Your task to perform on an android device: Open Maps and search for coffee Image 0: 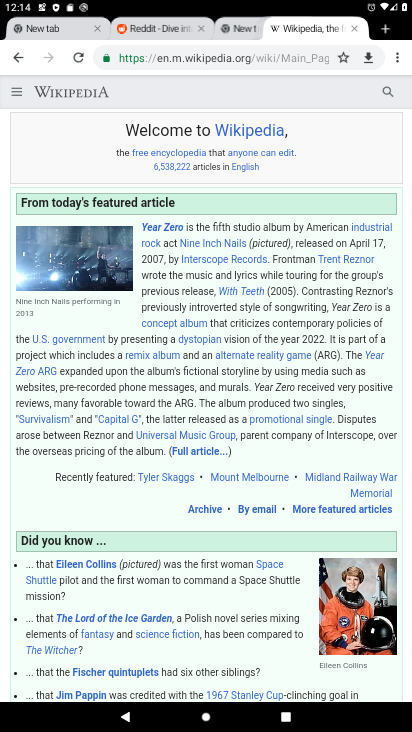
Step 0: press home button
Your task to perform on an android device: Open Maps and search for coffee Image 1: 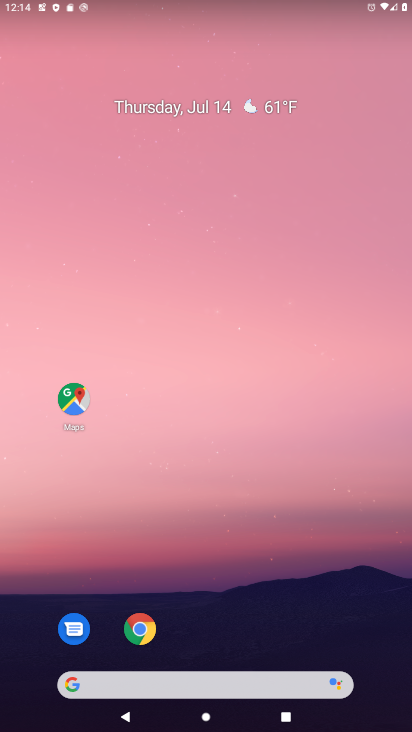
Step 1: click (71, 402)
Your task to perform on an android device: Open Maps and search for coffee Image 2: 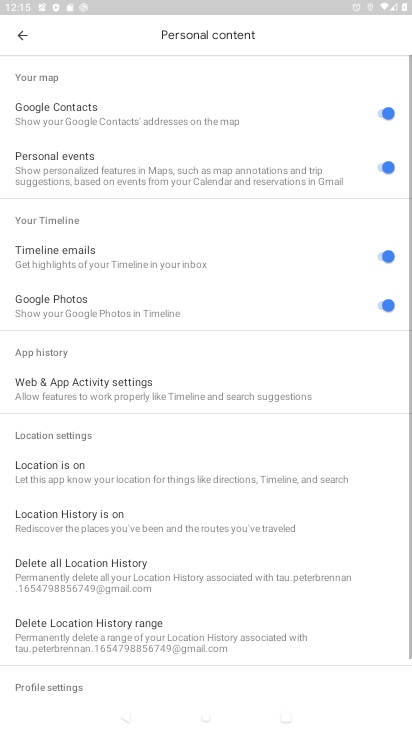
Step 2: click (17, 34)
Your task to perform on an android device: Open Maps and search for coffee Image 3: 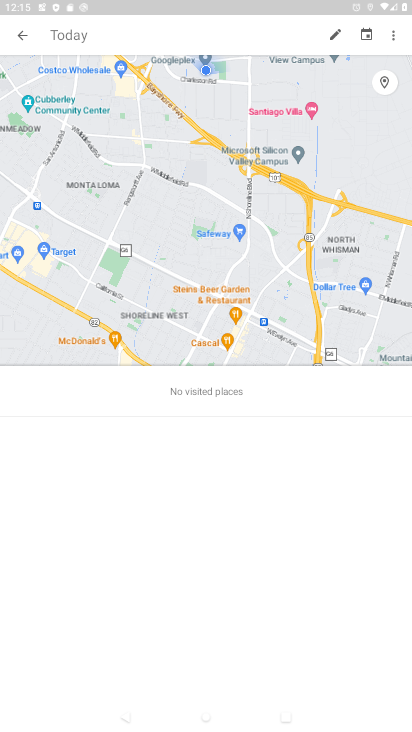
Step 3: click (15, 37)
Your task to perform on an android device: Open Maps and search for coffee Image 4: 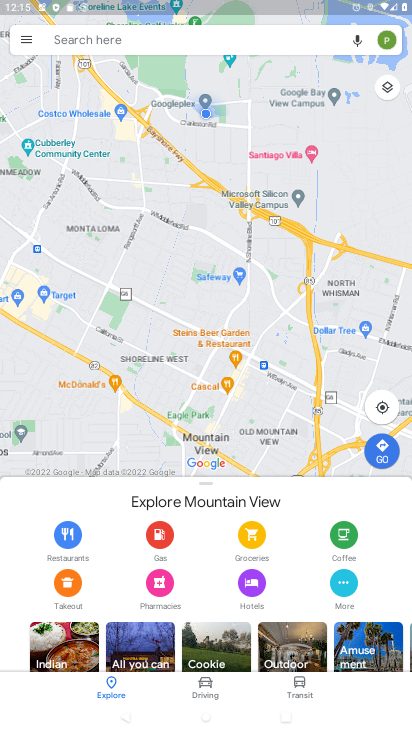
Step 4: click (83, 26)
Your task to perform on an android device: Open Maps and search for coffee Image 5: 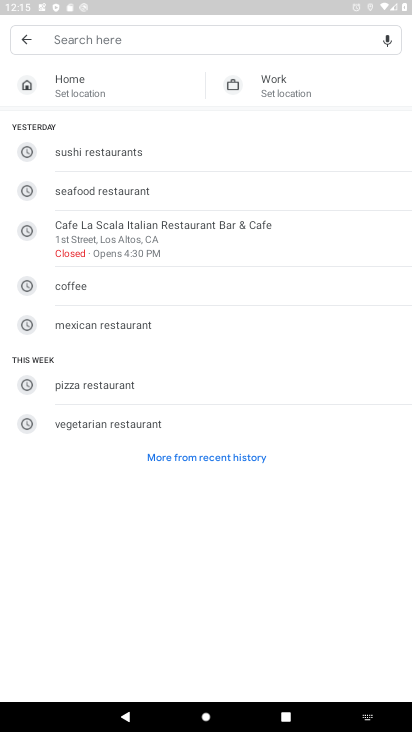
Step 5: type "coffee"
Your task to perform on an android device: Open Maps and search for coffee Image 6: 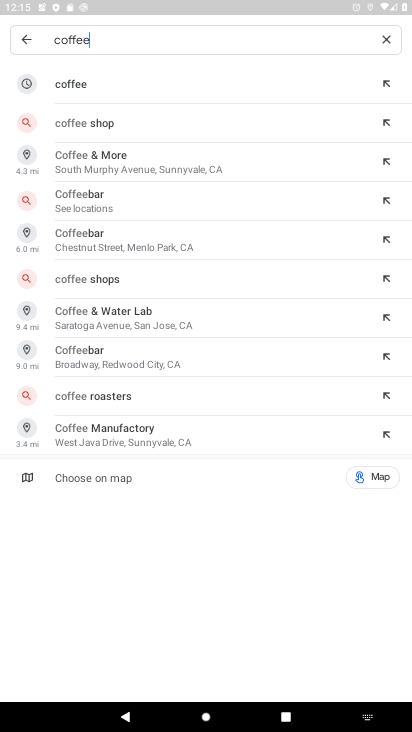
Step 6: click (78, 83)
Your task to perform on an android device: Open Maps and search for coffee Image 7: 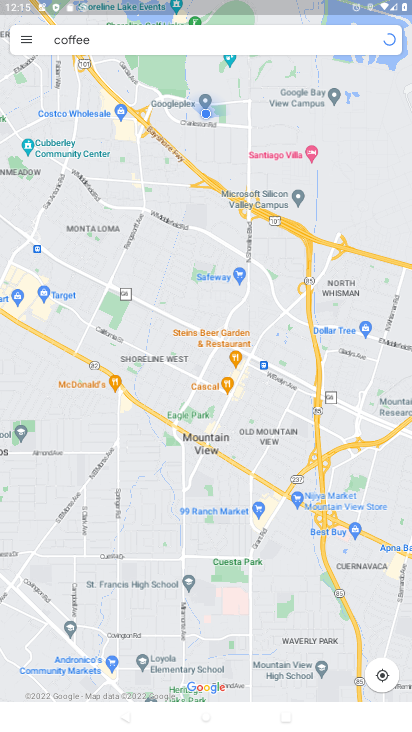
Step 7: task complete